Your task to perform on an android device: Go to ESPN.com Image 0: 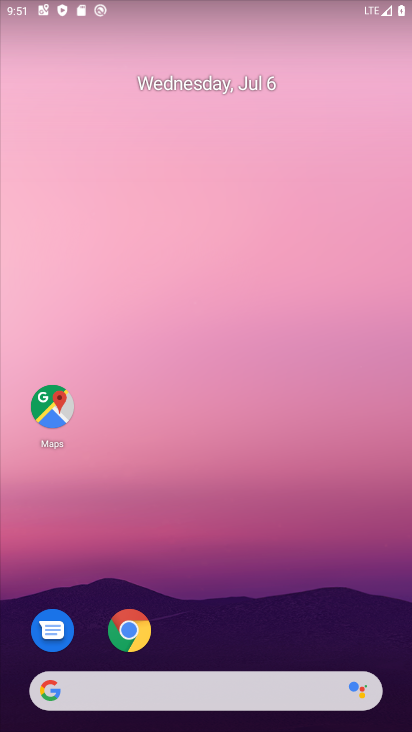
Step 0: click (126, 633)
Your task to perform on an android device: Go to ESPN.com Image 1: 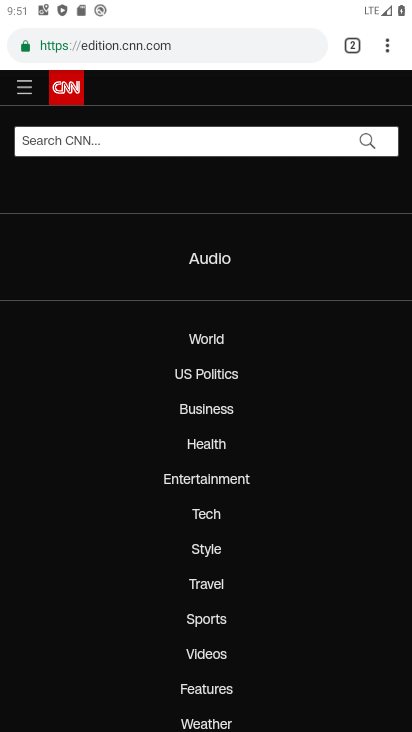
Step 1: click (199, 48)
Your task to perform on an android device: Go to ESPN.com Image 2: 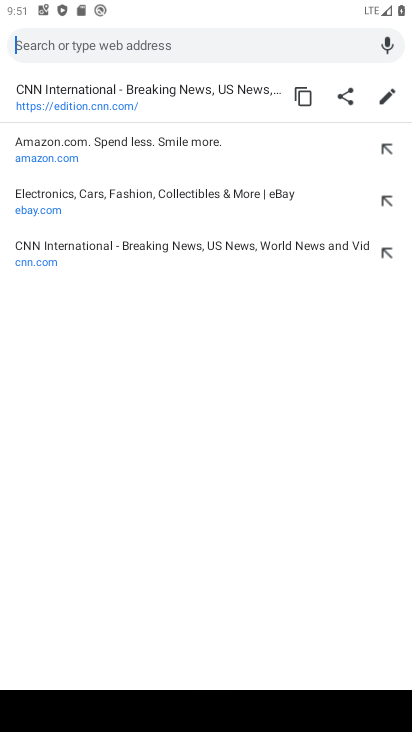
Step 2: type "ESPN.com"
Your task to perform on an android device: Go to ESPN.com Image 3: 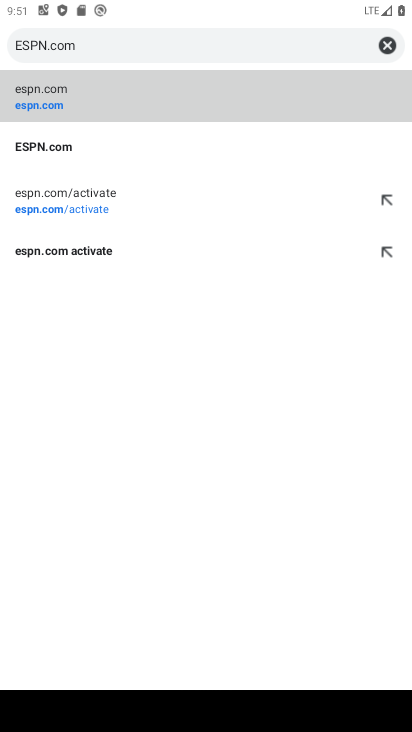
Step 3: click (43, 86)
Your task to perform on an android device: Go to ESPN.com Image 4: 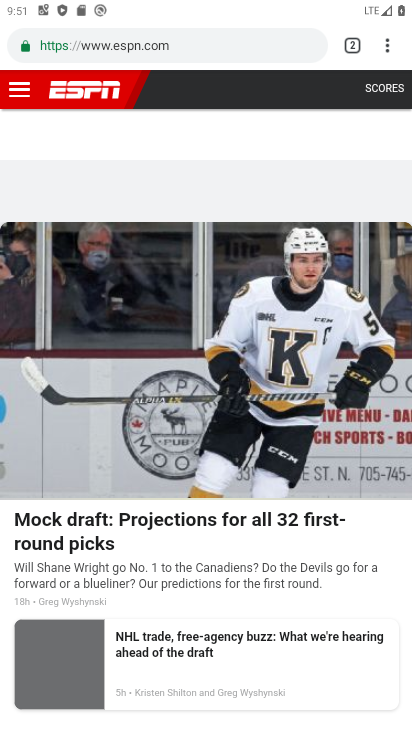
Step 4: task complete